Your task to perform on an android device: Search for sushi restaurants on Maps Image 0: 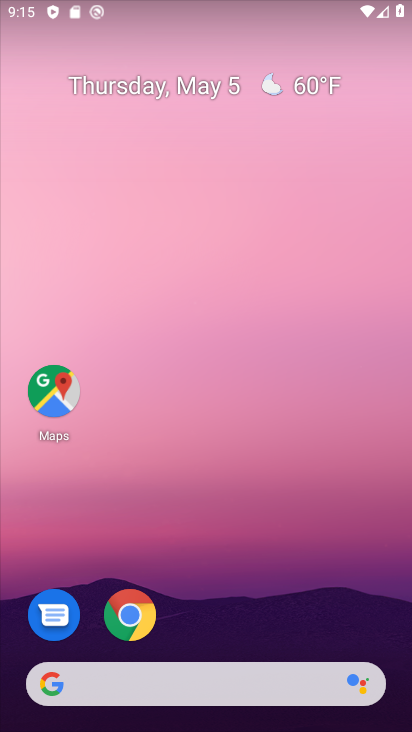
Step 0: drag from (235, 604) to (289, 114)
Your task to perform on an android device: Search for sushi restaurants on Maps Image 1: 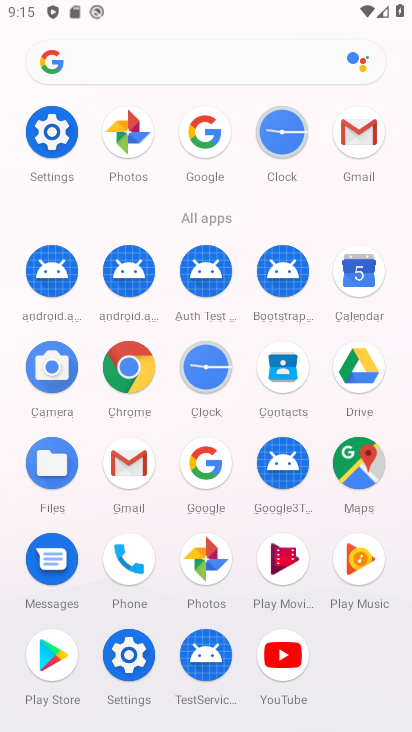
Step 1: click (355, 470)
Your task to perform on an android device: Search for sushi restaurants on Maps Image 2: 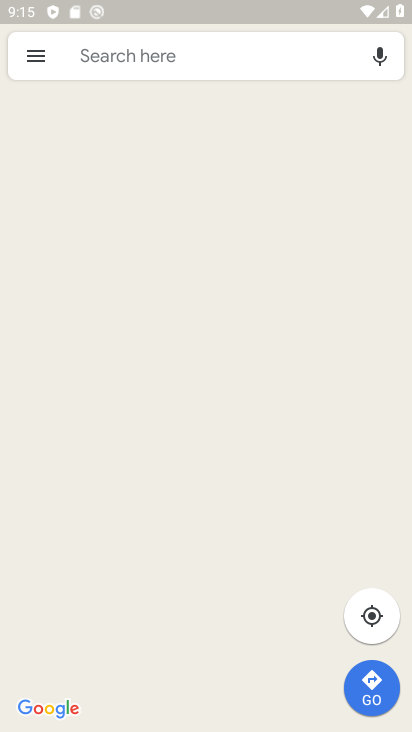
Step 2: click (152, 64)
Your task to perform on an android device: Search for sushi restaurants on Maps Image 3: 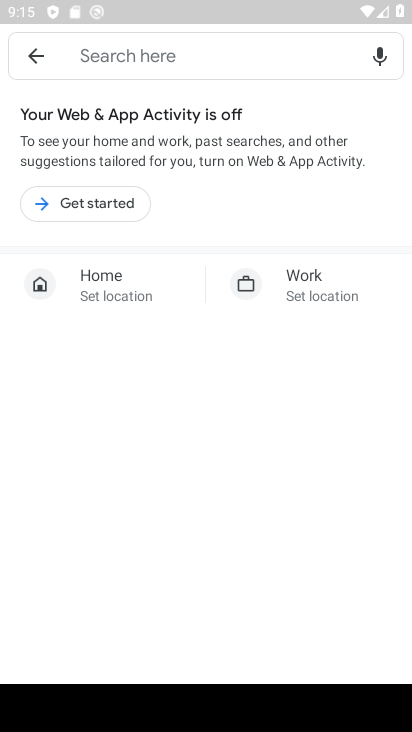
Step 3: click (106, 195)
Your task to perform on an android device: Search for sushi restaurants on Maps Image 4: 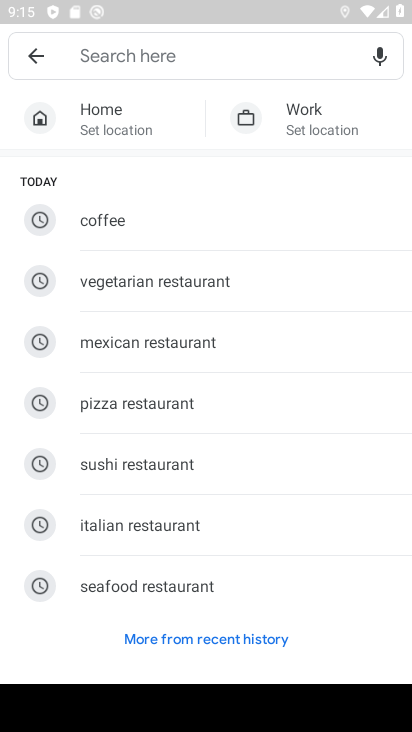
Step 4: click (137, 461)
Your task to perform on an android device: Search for sushi restaurants on Maps Image 5: 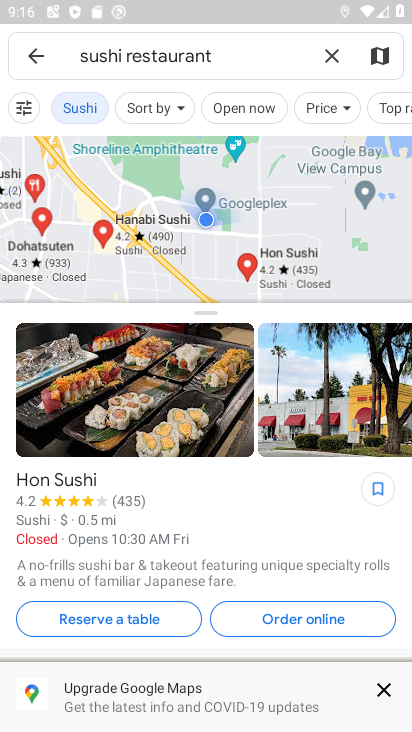
Step 5: task complete